Your task to perform on an android device: Go to network settings Image 0: 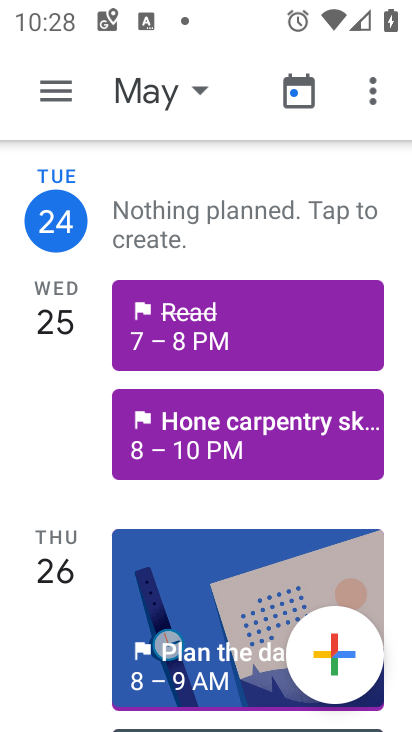
Step 0: press home button
Your task to perform on an android device: Go to network settings Image 1: 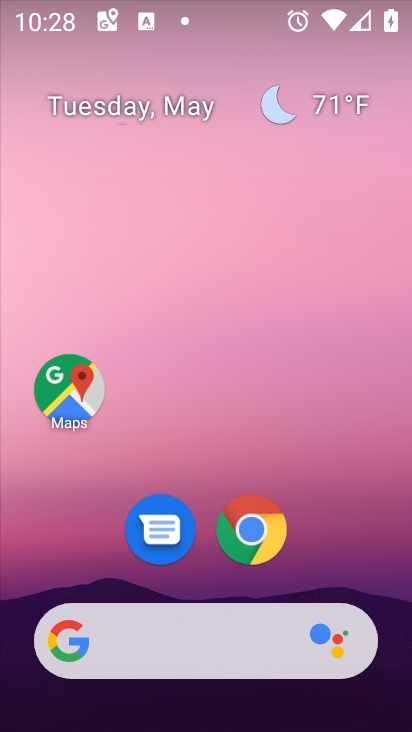
Step 1: drag from (294, 660) to (285, 318)
Your task to perform on an android device: Go to network settings Image 2: 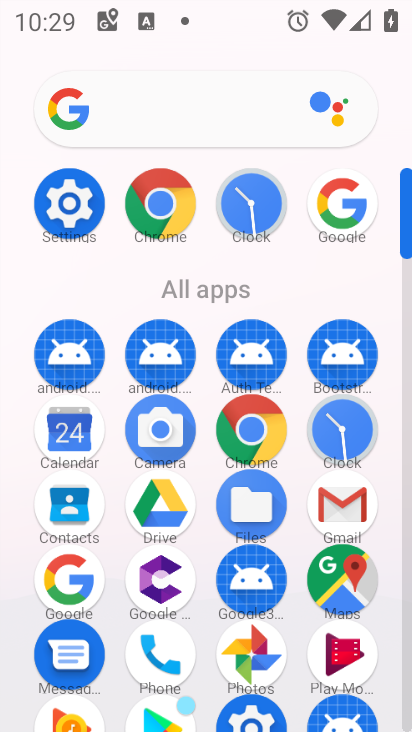
Step 2: click (80, 217)
Your task to perform on an android device: Go to network settings Image 3: 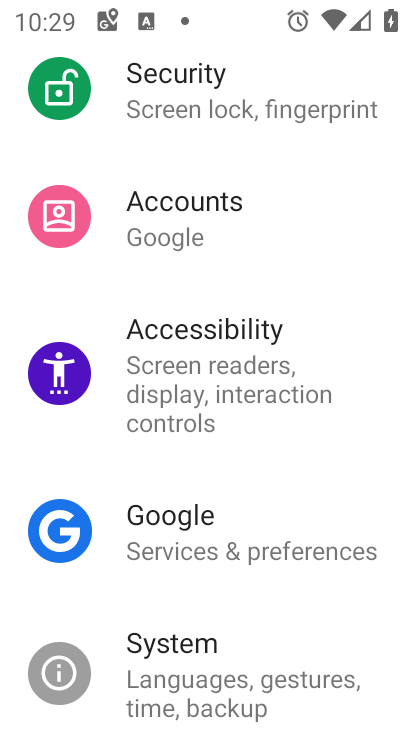
Step 3: click (224, 262)
Your task to perform on an android device: Go to network settings Image 4: 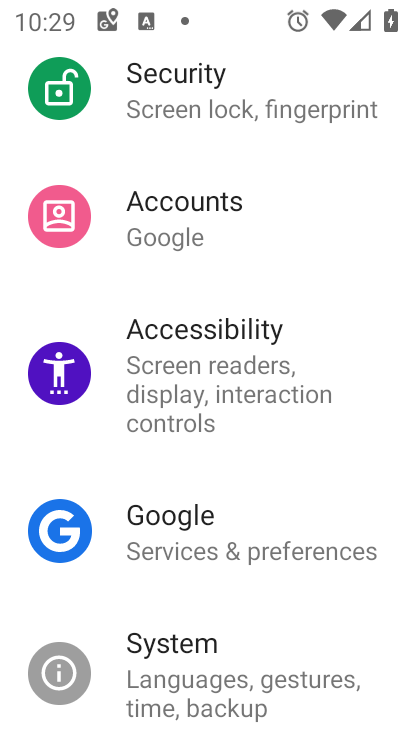
Step 4: drag from (293, 207) to (241, 404)
Your task to perform on an android device: Go to network settings Image 5: 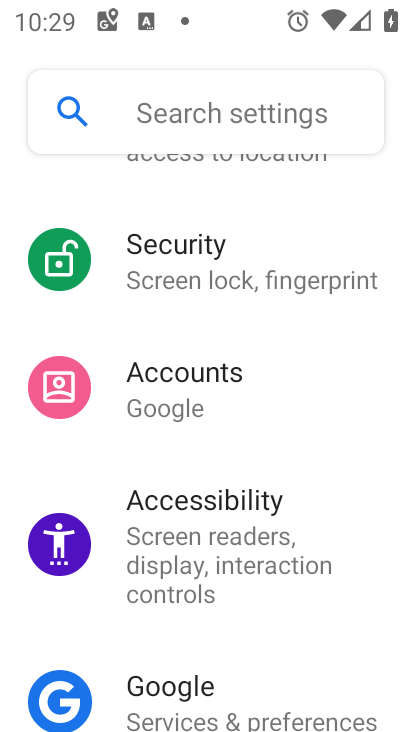
Step 5: drag from (253, 355) to (256, 479)
Your task to perform on an android device: Go to network settings Image 6: 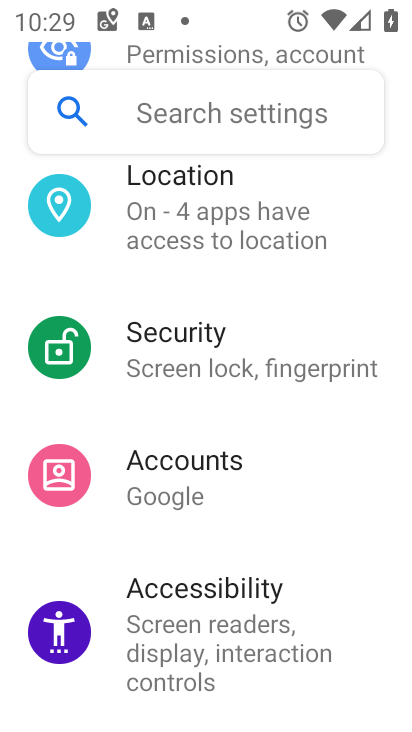
Step 6: drag from (265, 233) to (226, 429)
Your task to perform on an android device: Go to network settings Image 7: 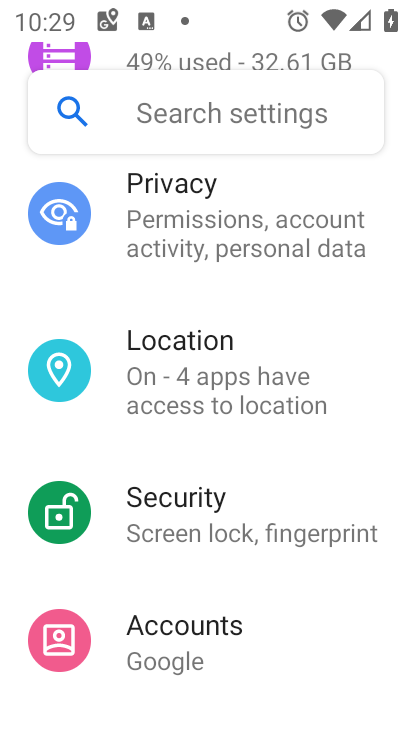
Step 7: drag from (285, 273) to (264, 675)
Your task to perform on an android device: Go to network settings Image 8: 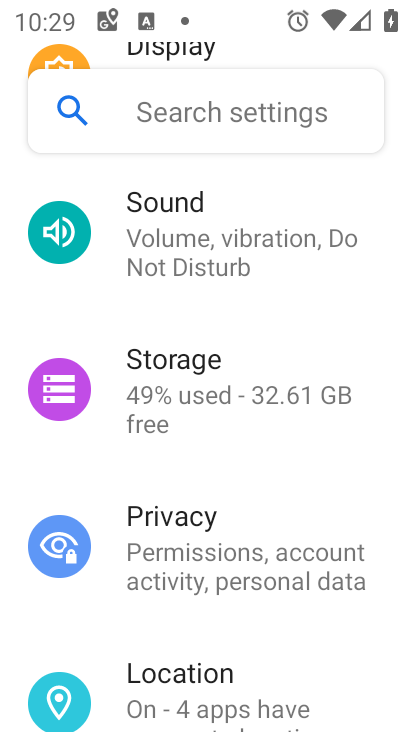
Step 8: drag from (260, 404) to (257, 478)
Your task to perform on an android device: Go to network settings Image 9: 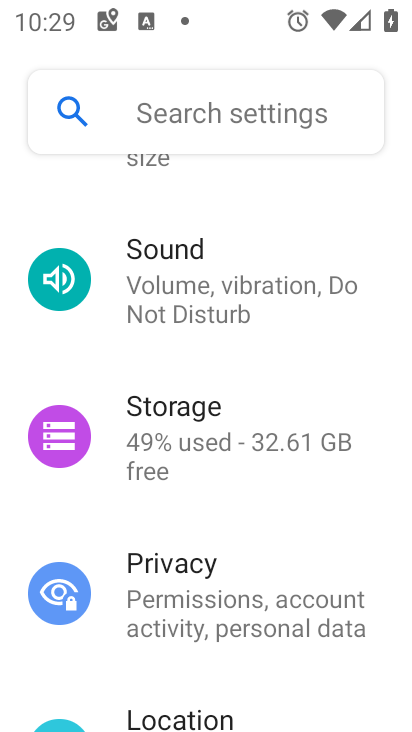
Step 9: drag from (291, 184) to (254, 337)
Your task to perform on an android device: Go to network settings Image 10: 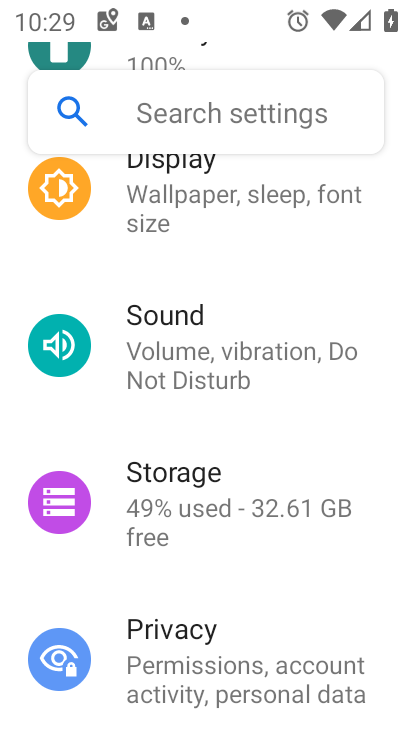
Step 10: drag from (261, 233) to (252, 352)
Your task to perform on an android device: Go to network settings Image 11: 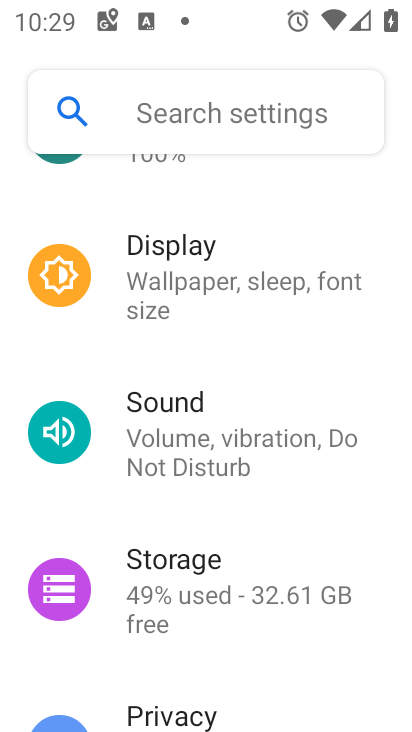
Step 11: drag from (261, 263) to (259, 515)
Your task to perform on an android device: Go to network settings Image 12: 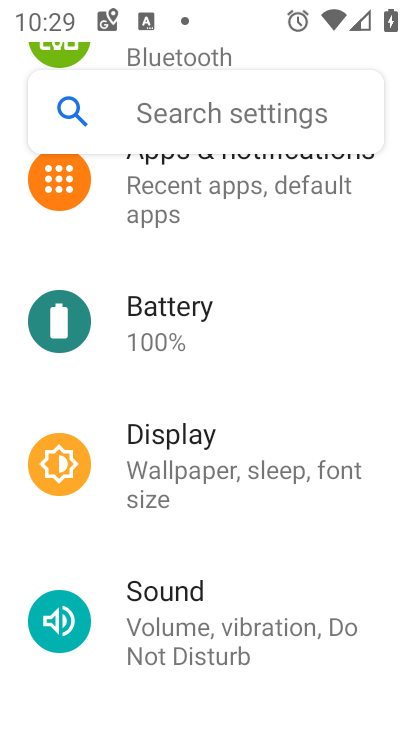
Step 12: drag from (298, 224) to (276, 432)
Your task to perform on an android device: Go to network settings Image 13: 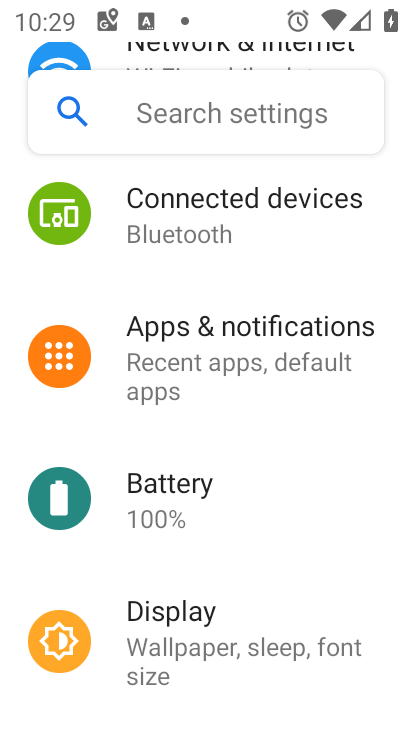
Step 13: drag from (287, 206) to (267, 446)
Your task to perform on an android device: Go to network settings Image 14: 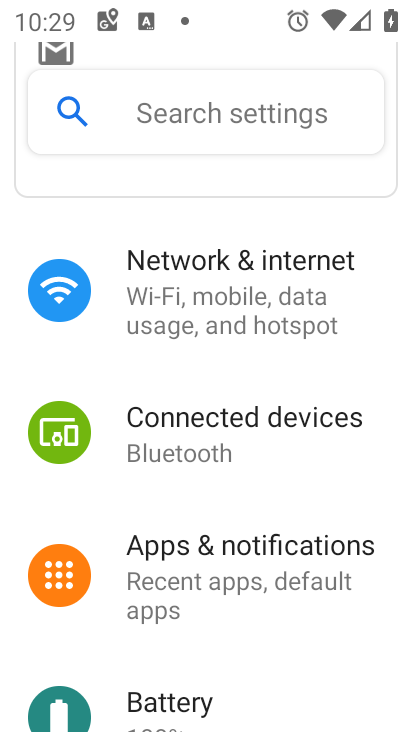
Step 14: click (286, 283)
Your task to perform on an android device: Go to network settings Image 15: 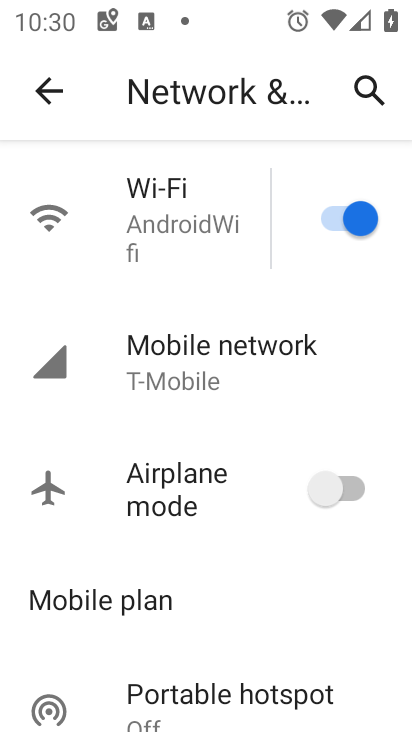
Step 15: task complete